Your task to perform on an android device: Open Chrome and go to settings Image 0: 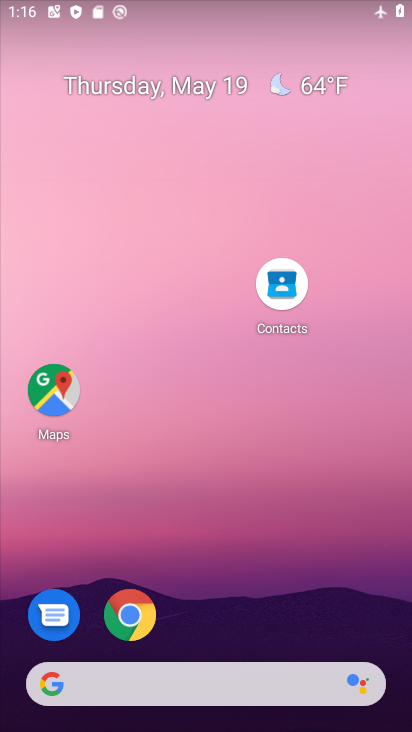
Step 0: drag from (196, 624) to (86, 78)
Your task to perform on an android device: Open Chrome and go to settings Image 1: 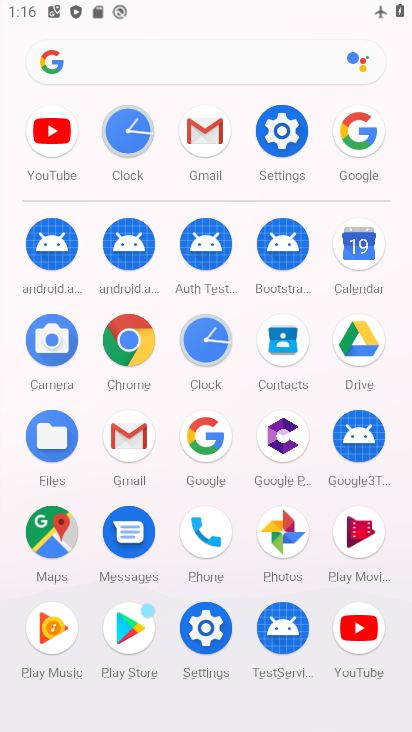
Step 1: click (142, 361)
Your task to perform on an android device: Open Chrome and go to settings Image 2: 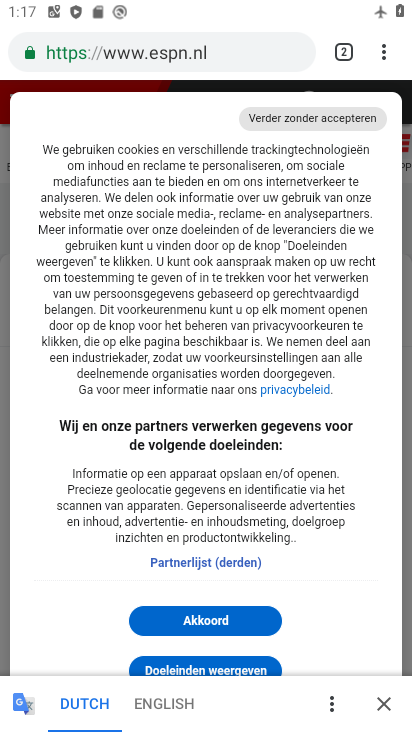
Step 2: click (385, 52)
Your task to perform on an android device: Open Chrome and go to settings Image 3: 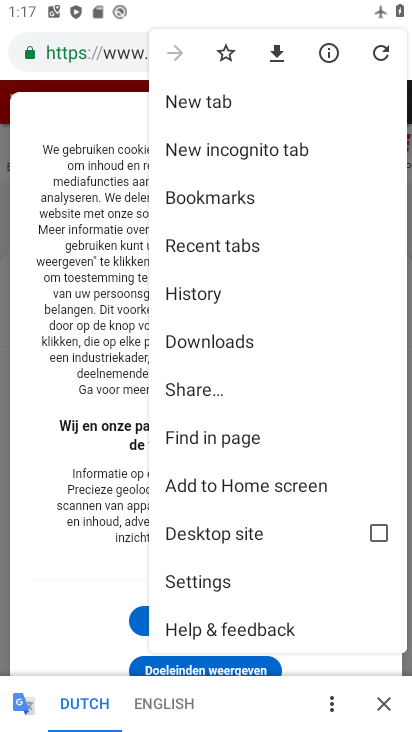
Step 3: click (270, 588)
Your task to perform on an android device: Open Chrome and go to settings Image 4: 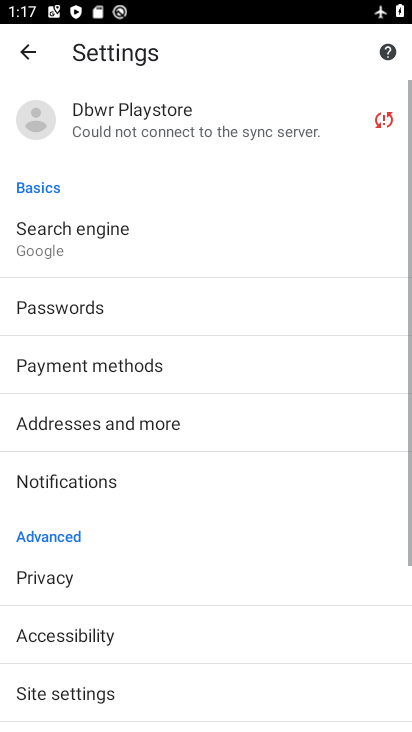
Step 4: task complete